Your task to perform on an android device: Go to calendar. Show me events next week Image 0: 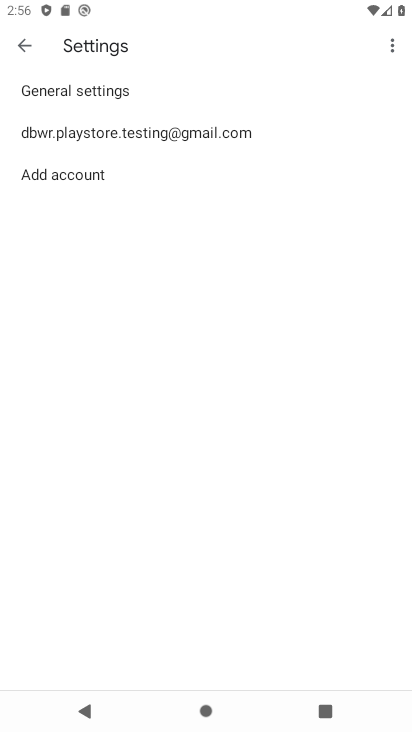
Step 0: press back button
Your task to perform on an android device: Go to calendar. Show me events next week Image 1: 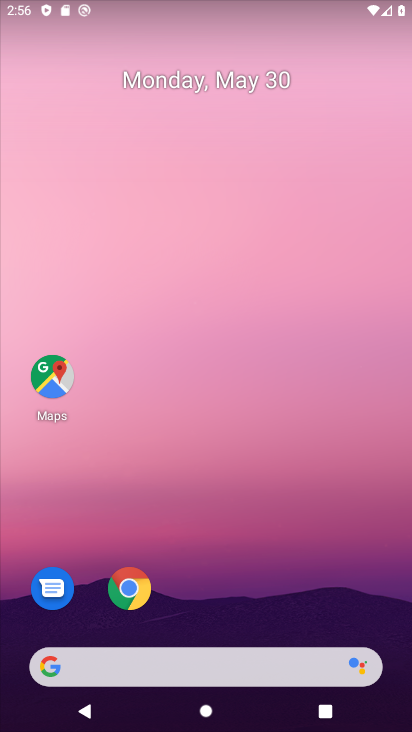
Step 1: drag from (275, 563) to (207, 10)
Your task to perform on an android device: Go to calendar. Show me events next week Image 2: 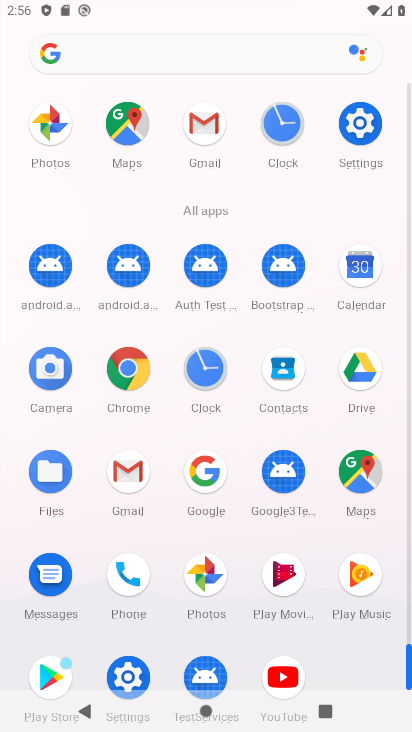
Step 2: drag from (3, 535) to (8, 216)
Your task to perform on an android device: Go to calendar. Show me events next week Image 3: 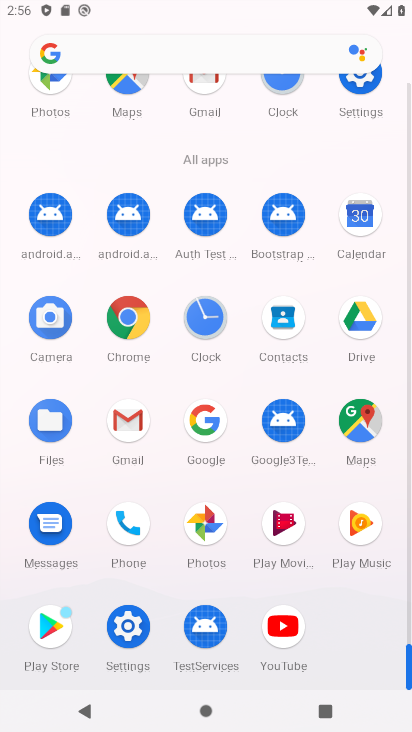
Step 3: click (362, 210)
Your task to perform on an android device: Go to calendar. Show me events next week Image 4: 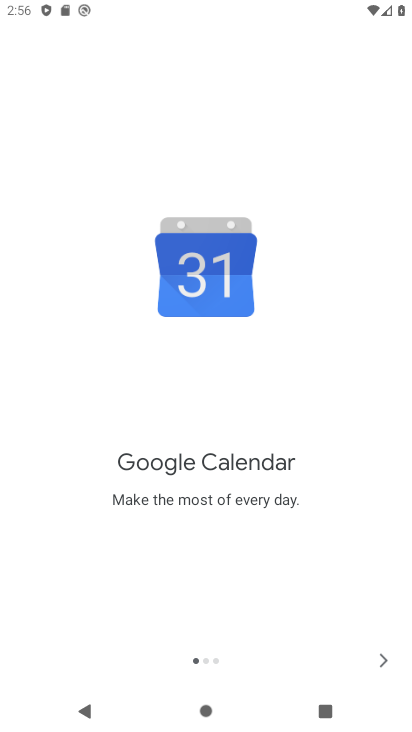
Step 4: click (377, 651)
Your task to perform on an android device: Go to calendar. Show me events next week Image 5: 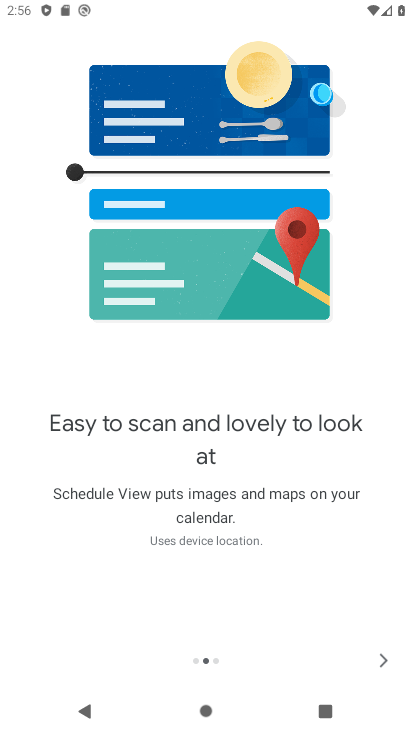
Step 5: click (379, 650)
Your task to perform on an android device: Go to calendar. Show me events next week Image 6: 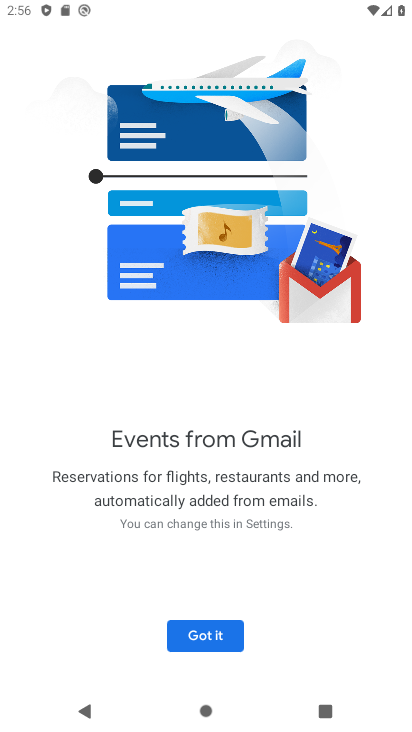
Step 6: click (192, 629)
Your task to perform on an android device: Go to calendar. Show me events next week Image 7: 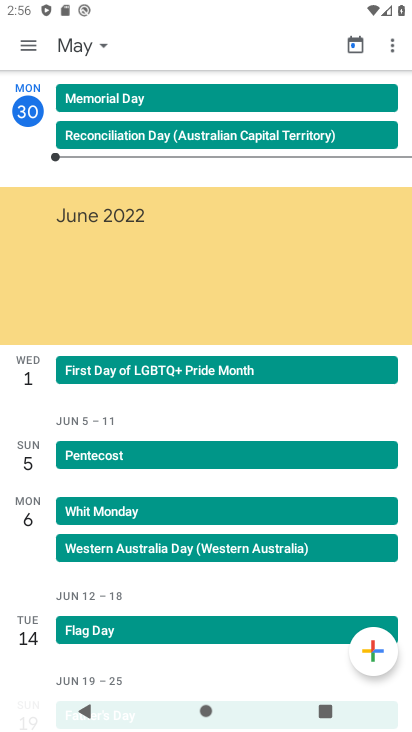
Step 7: click (83, 46)
Your task to perform on an android device: Go to calendar. Show me events next week Image 8: 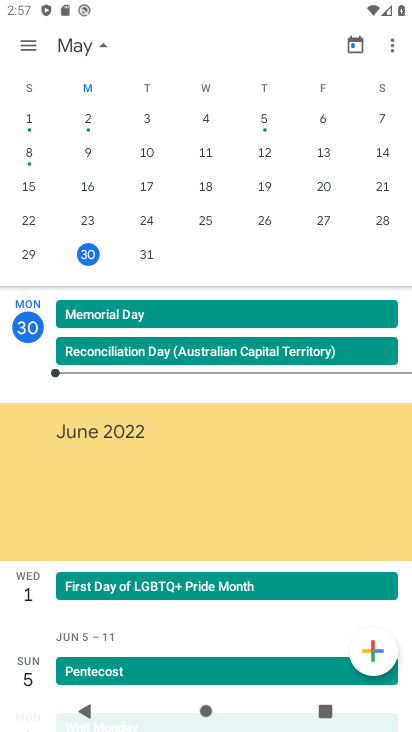
Step 8: click (31, 46)
Your task to perform on an android device: Go to calendar. Show me events next week Image 9: 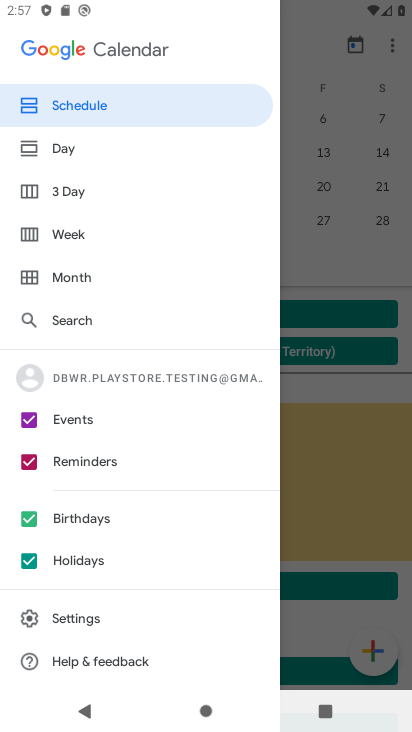
Step 9: click (100, 241)
Your task to perform on an android device: Go to calendar. Show me events next week Image 10: 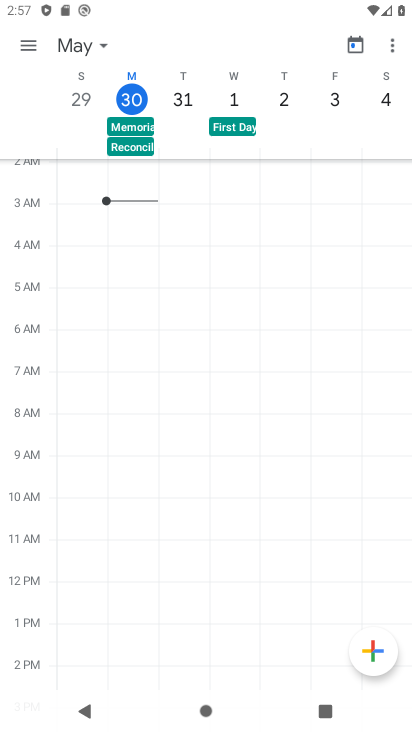
Step 10: task complete